Your task to perform on an android device: turn on bluetooth scan Image 0: 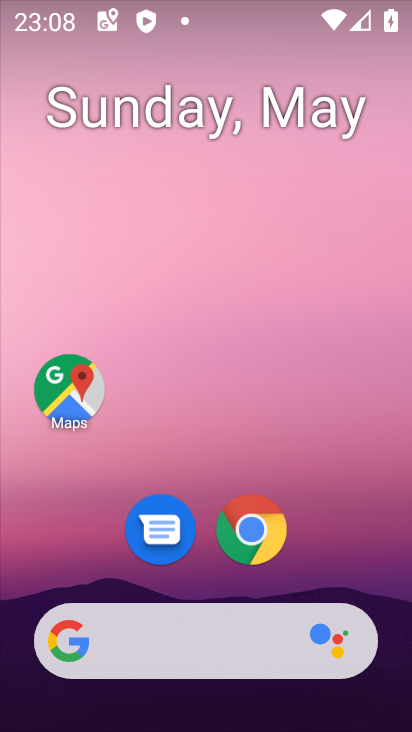
Step 0: drag from (388, 557) to (310, 132)
Your task to perform on an android device: turn on bluetooth scan Image 1: 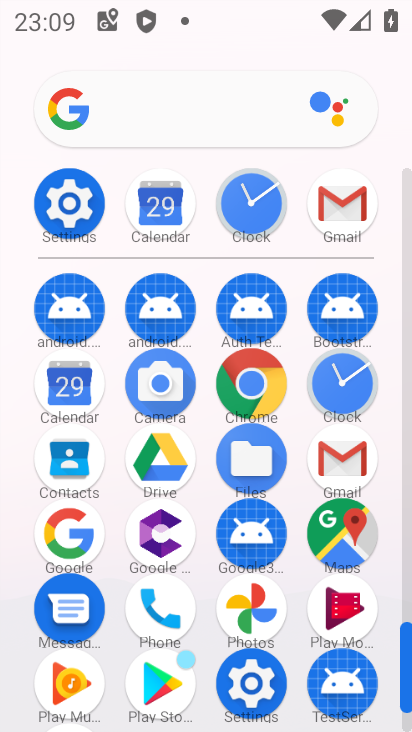
Step 1: click (84, 219)
Your task to perform on an android device: turn on bluetooth scan Image 2: 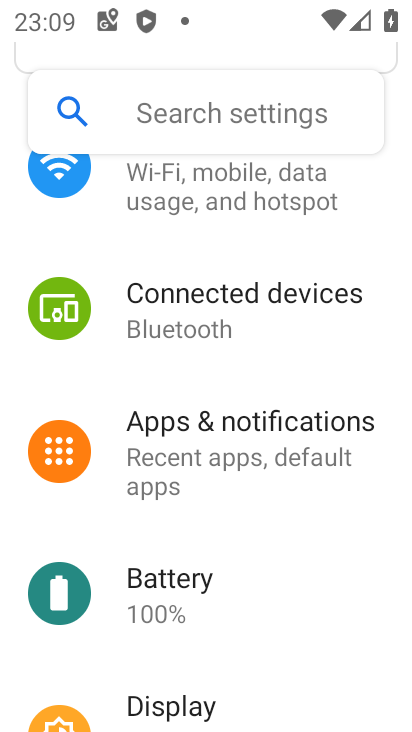
Step 2: task complete